Your task to perform on an android device: turn on sleep mode Image 0: 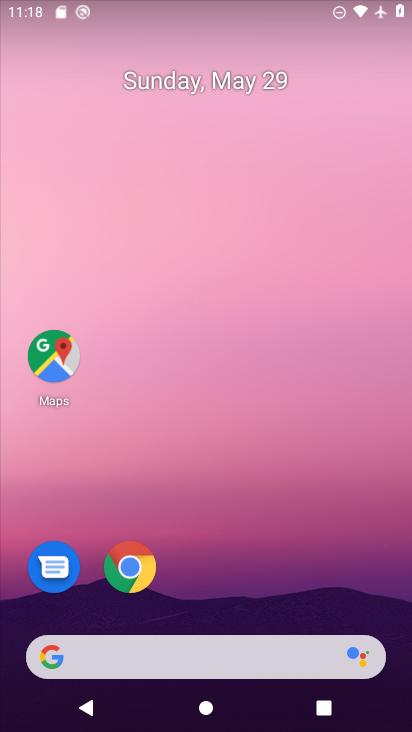
Step 0: drag from (375, 608) to (287, 0)
Your task to perform on an android device: turn on sleep mode Image 1: 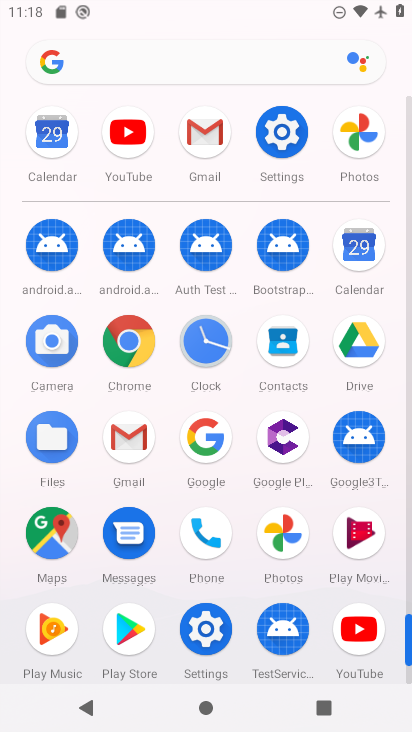
Step 1: click (202, 627)
Your task to perform on an android device: turn on sleep mode Image 2: 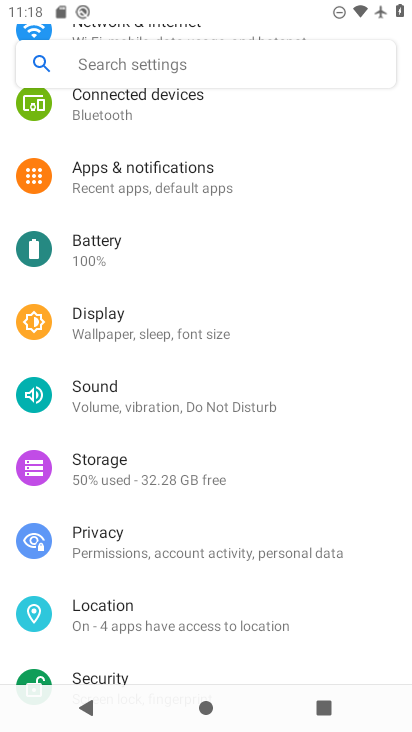
Step 2: drag from (263, 268) to (247, 208)
Your task to perform on an android device: turn on sleep mode Image 3: 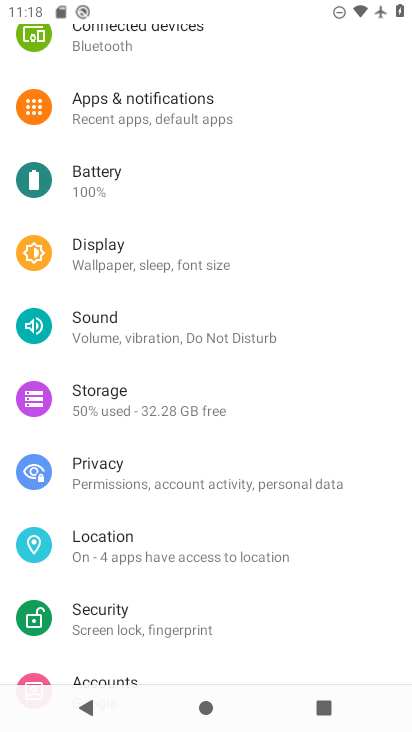
Step 3: drag from (206, 248) to (243, 528)
Your task to perform on an android device: turn on sleep mode Image 4: 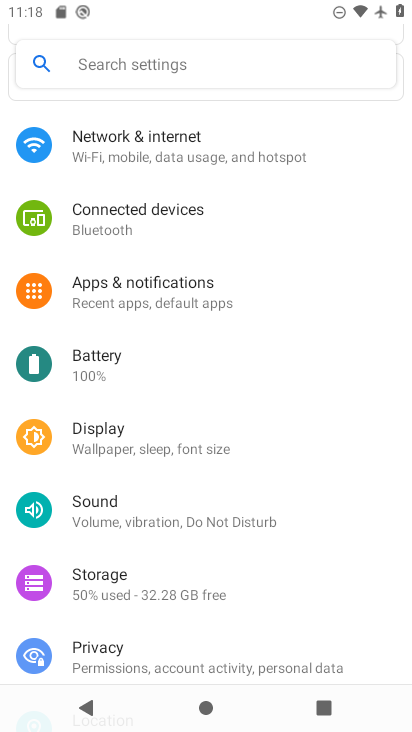
Step 4: click (107, 420)
Your task to perform on an android device: turn on sleep mode Image 5: 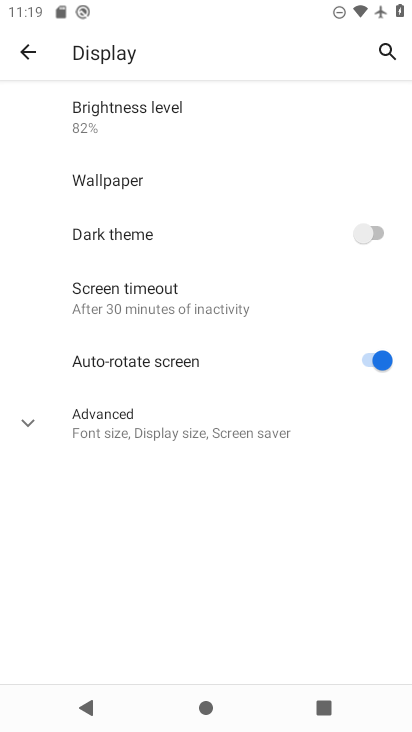
Step 5: click (21, 425)
Your task to perform on an android device: turn on sleep mode Image 6: 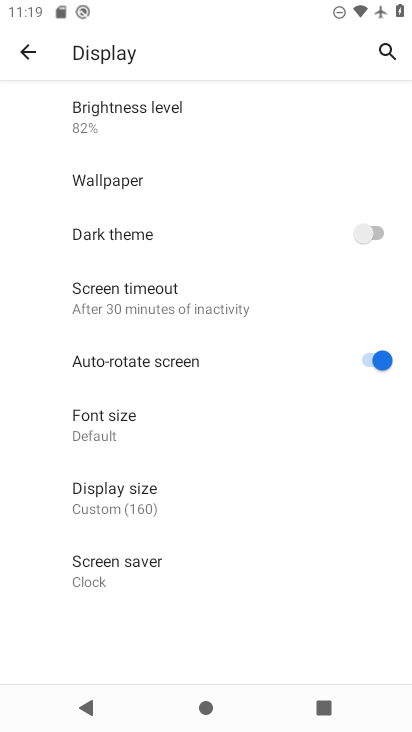
Step 6: task complete